Your task to perform on an android device: turn off notifications settings in the gmail app Image 0: 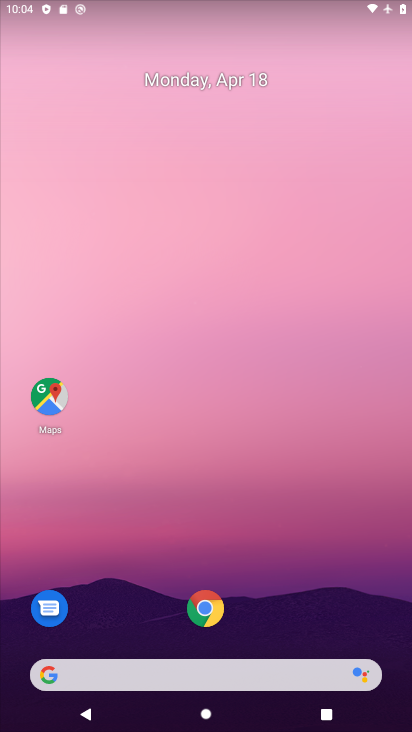
Step 0: click (47, 389)
Your task to perform on an android device: turn off notifications settings in the gmail app Image 1: 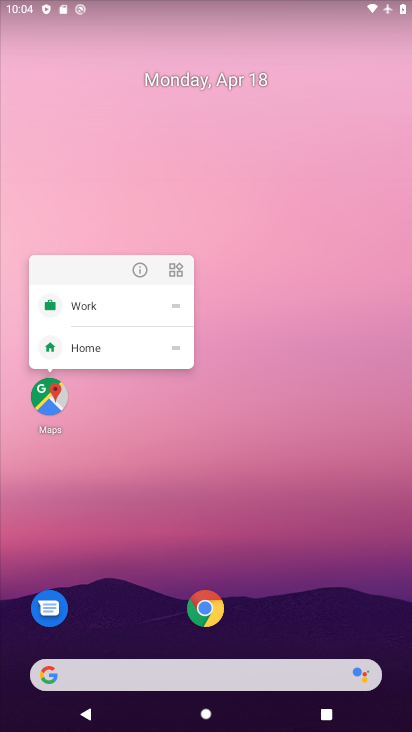
Step 1: click (47, 404)
Your task to perform on an android device: turn off notifications settings in the gmail app Image 2: 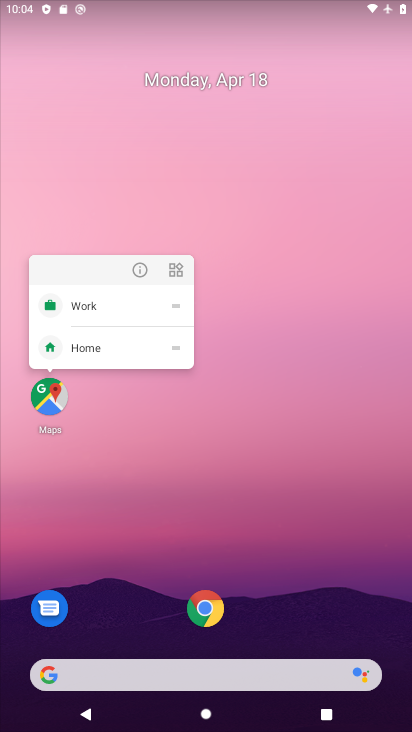
Step 2: click (50, 415)
Your task to perform on an android device: turn off notifications settings in the gmail app Image 3: 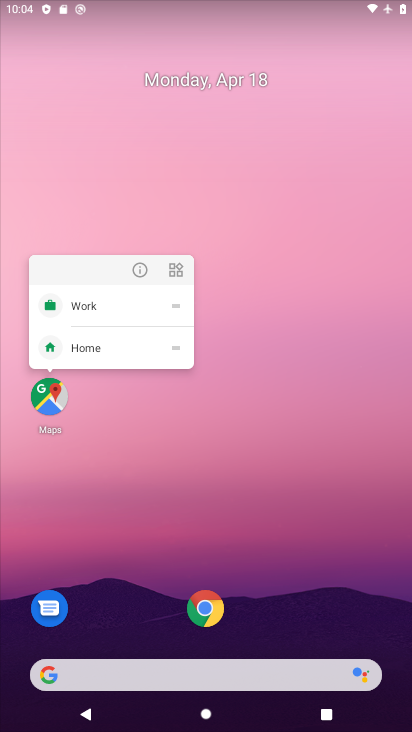
Step 3: click (60, 399)
Your task to perform on an android device: turn off notifications settings in the gmail app Image 4: 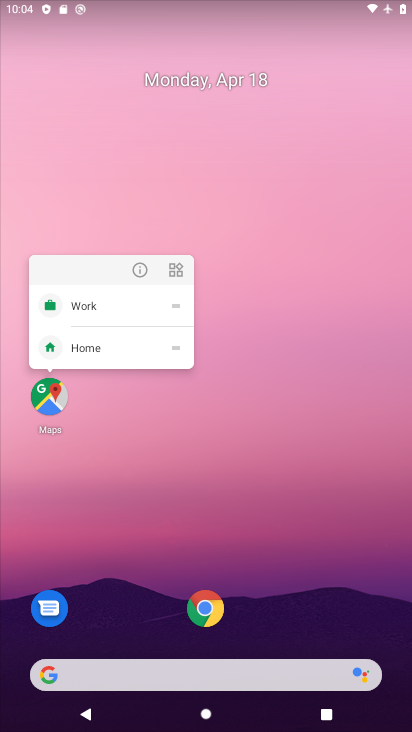
Step 4: click (56, 405)
Your task to perform on an android device: turn off notifications settings in the gmail app Image 5: 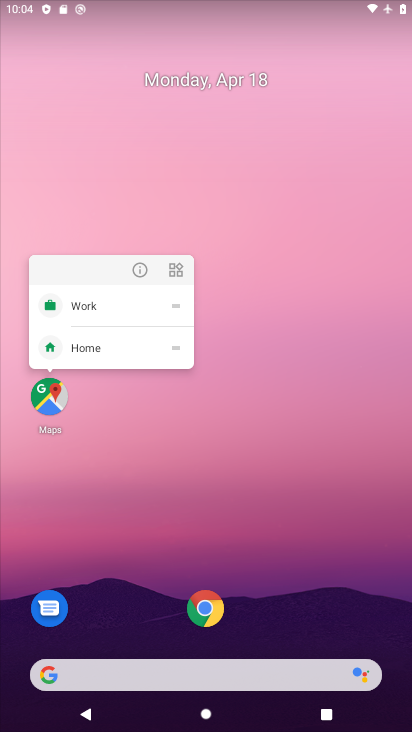
Step 5: click (56, 405)
Your task to perform on an android device: turn off notifications settings in the gmail app Image 6: 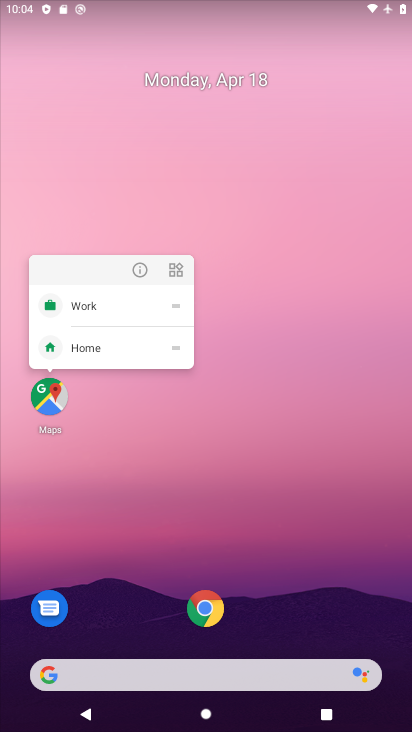
Step 6: click (56, 405)
Your task to perform on an android device: turn off notifications settings in the gmail app Image 7: 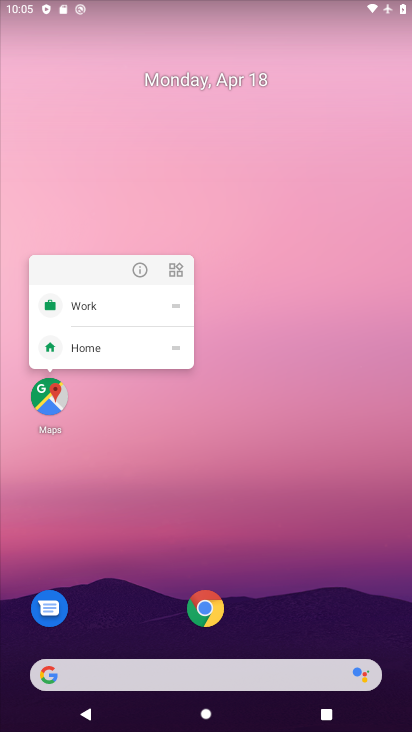
Step 7: drag from (319, 604) to (370, 161)
Your task to perform on an android device: turn off notifications settings in the gmail app Image 8: 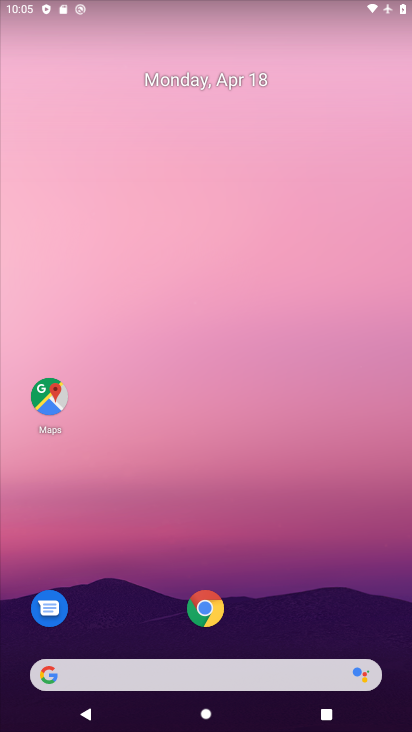
Step 8: drag from (268, 603) to (290, 197)
Your task to perform on an android device: turn off notifications settings in the gmail app Image 9: 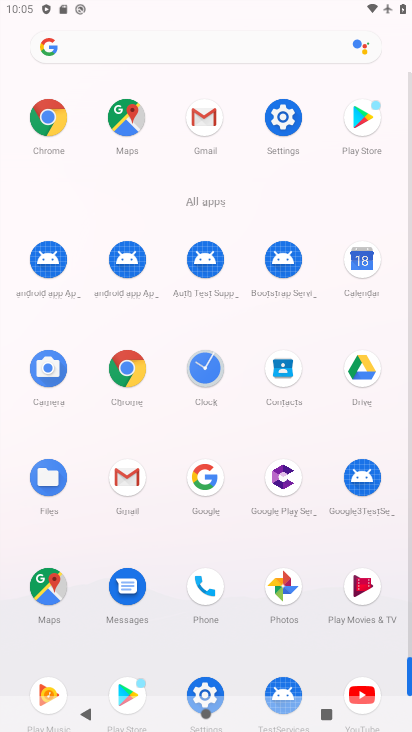
Step 9: click (128, 481)
Your task to perform on an android device: turn off notifications settings in the gmail app Image 10: 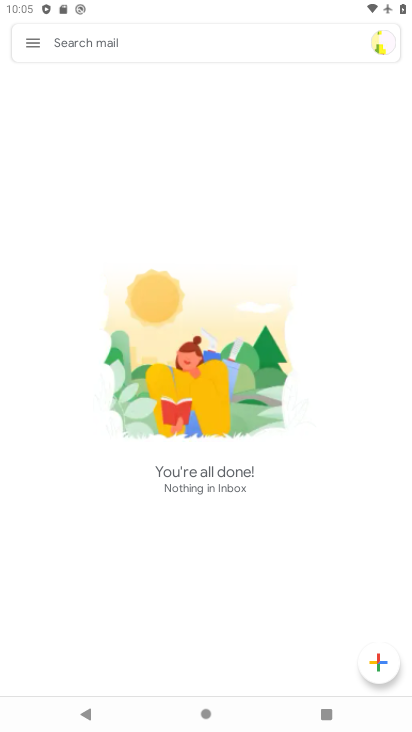
Step 10: click (35, 49)
Your task to perform on an android device: turn off notifications settings in the gmail app Image 11: 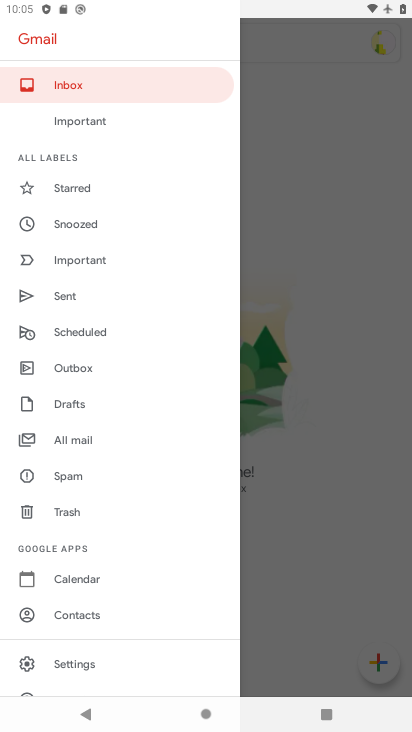
Step 11: click (86, 664)
Your task to perform on an android device: turn off notifications settings in the gmail app Image 12: 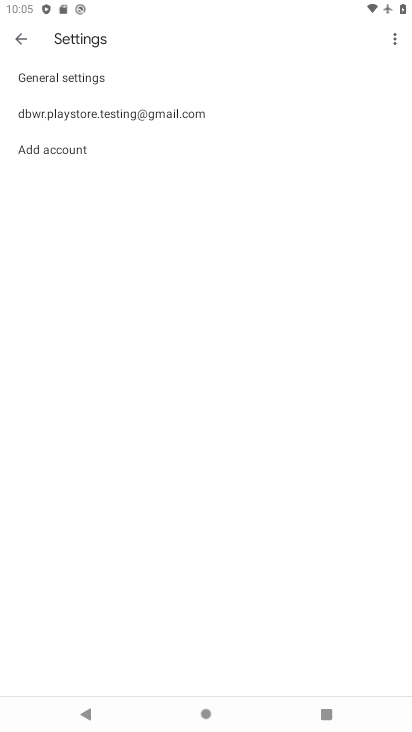
Step 12: click (164, 112)
Your task to perform on an android device: turn off notifications settings in the gmail app Image 13: 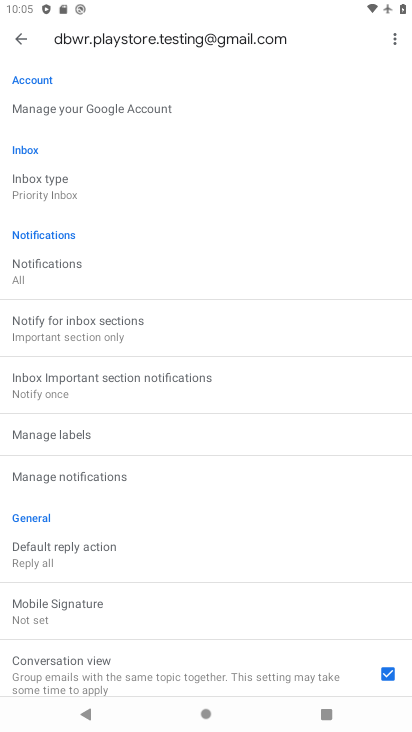
Step 13: click (36, 272)
Your task to perform on an android device: turn off notifications settings in the gmail app Image 14: 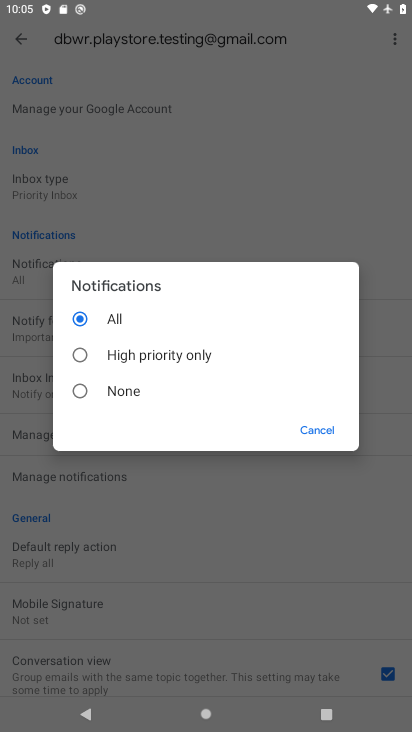
Step 14: click (130, 393)
Your task to perform on an android device: turn off notifications settings in the gmail app Image 15: 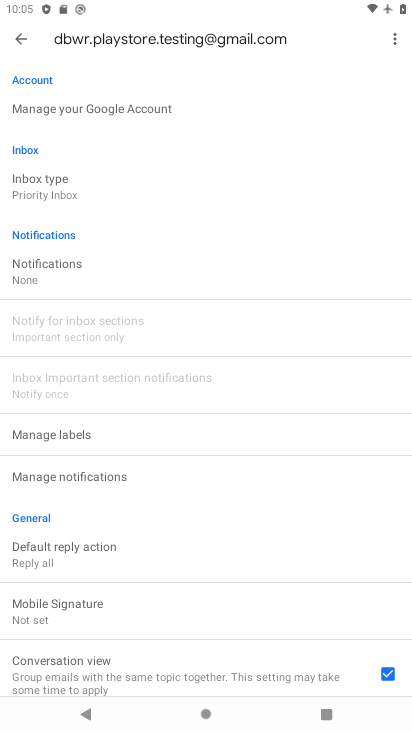
Step 15: task complete